Your task to perform on an android device: Open the calendar and show me this week's events Image 0: 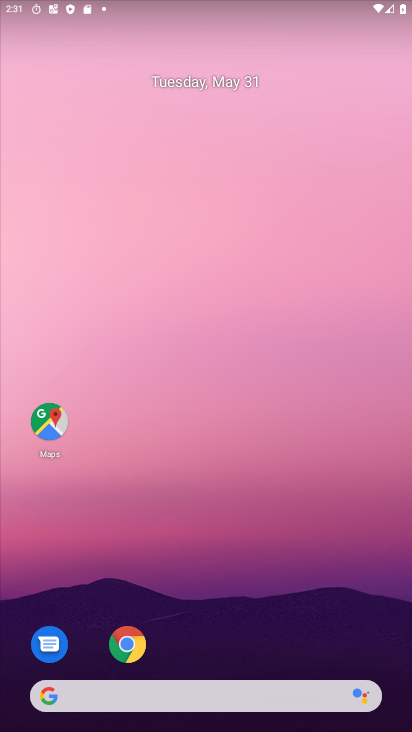
Step 0: click (124, 649)
Your task to perform on an android device: Open the calendar and show me this week's events Image 1: 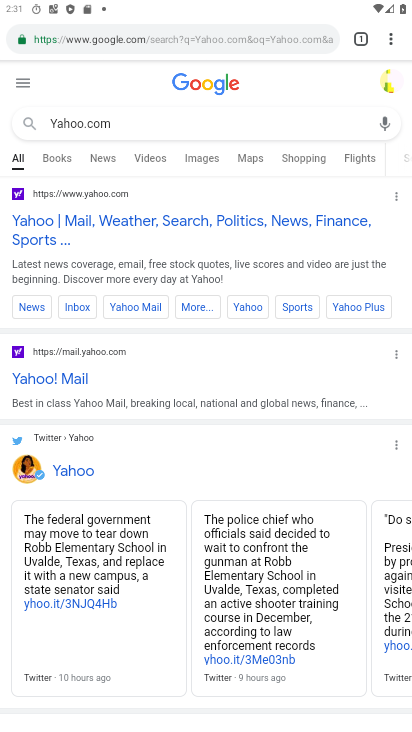
Step 1: press home button
Your task to perform on an android device: Open the calendar and show me this week's events Image 2: 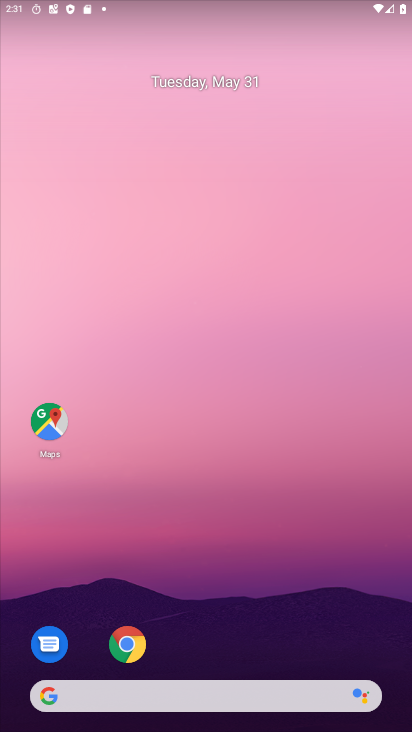
Step 2: drag from (385, 637) to (302, 214)
Your task to perform on an android device: Open the calendar and show me this week's events Image 3: 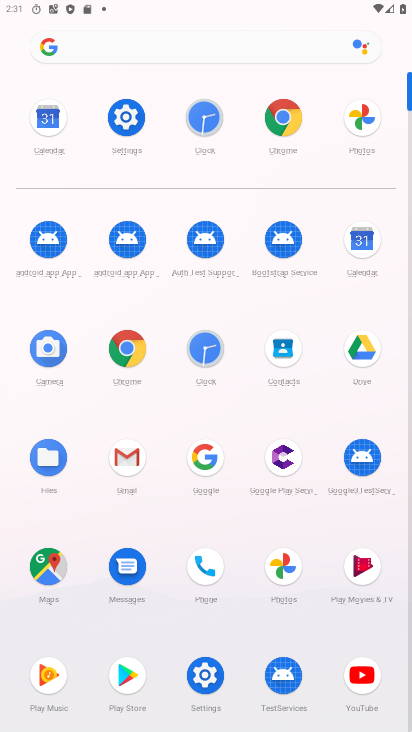
Step 3: click (371, 245)
Your task to perform on an android device: Open the calendar and show me this week's events Image 4: 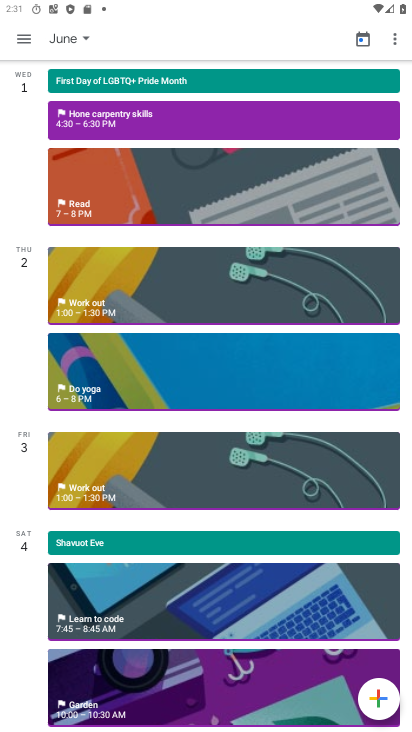
Step 4: click (78, 35)
Your task to perform on an android device: Open the calendar and show me this week's events Image 5: 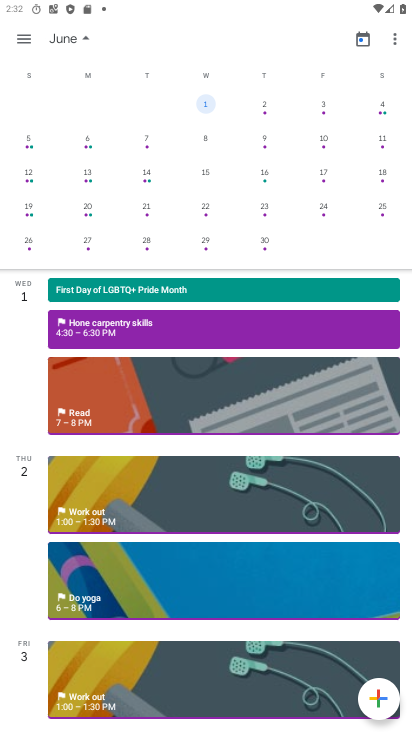
Step 5: drag from (28, 163) to (372, 120)
Your task to perform on an android device: Open the calendar and show me this week's events Image 6: 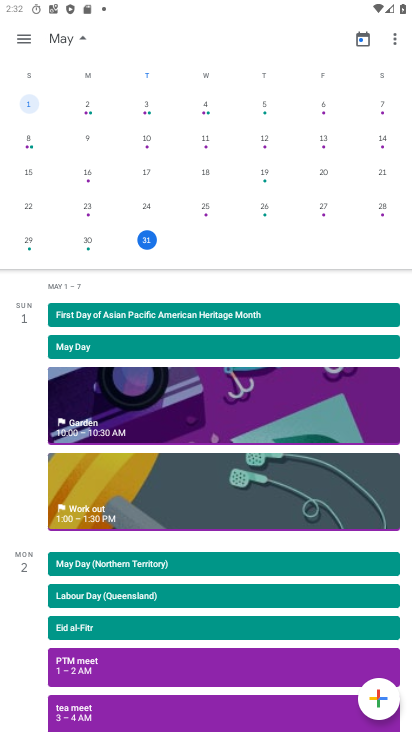
Step 6: click (147, 244)
Your task to perform on an android device: Open the calendar and show me this week's events Image 7: 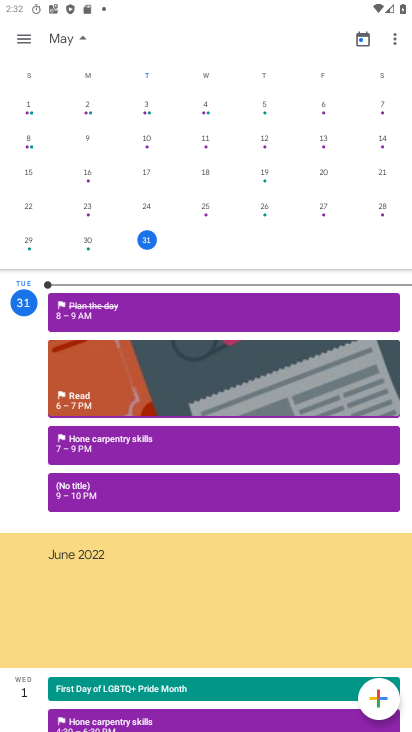
Step 7: click (16, 32)
Your task to perform on an android device: Open the calendar and show me this week's events Image 8: 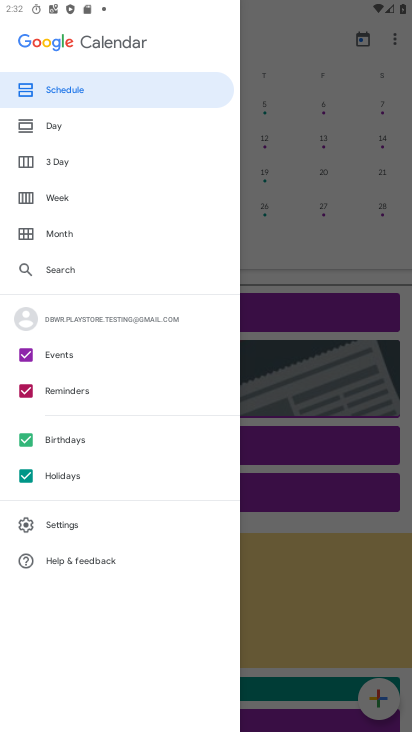
Step 8: click (45, 197)
Your task to perform on an android device: Open the calendar and show me this week's events Image 9: 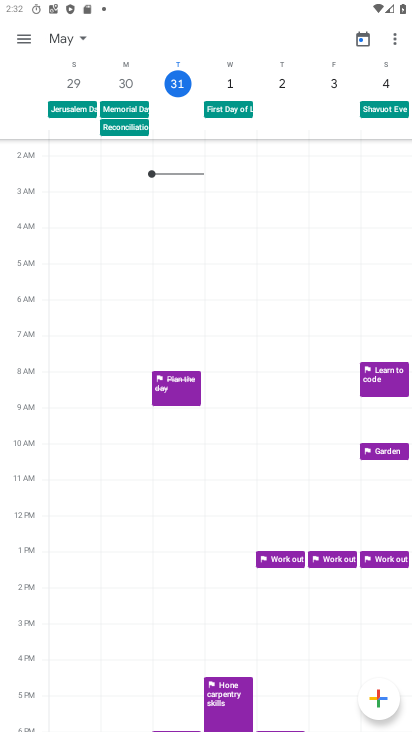
Step 9: click (25, 38)
Your task to perform on an android device: Open the calendar and show me this week's events Image 10: 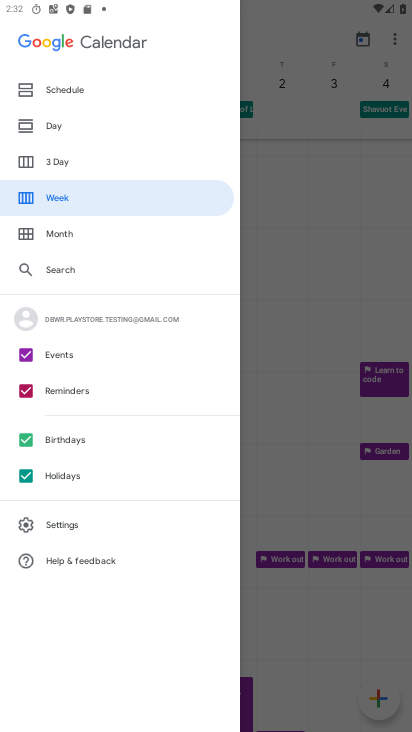
Step 10: click (61, 84)
Your task to perform on an android device: Open the calendar and show me this week's events Image 11: 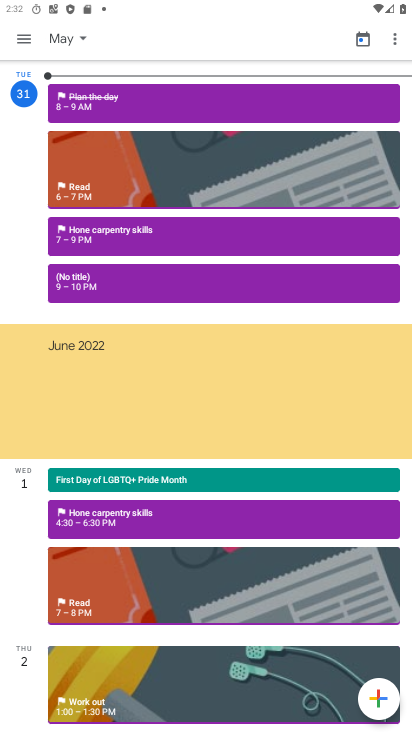
Step 11: task complete